Your task to perform on an android device: add a label to a message in the gmail app Image 0: 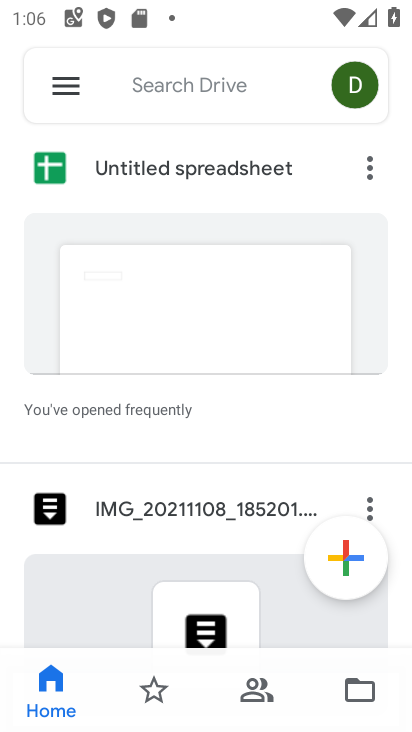
Step 0: press home button
Your task to perform on an android device: add a label to a message in the gmail app Image 1: 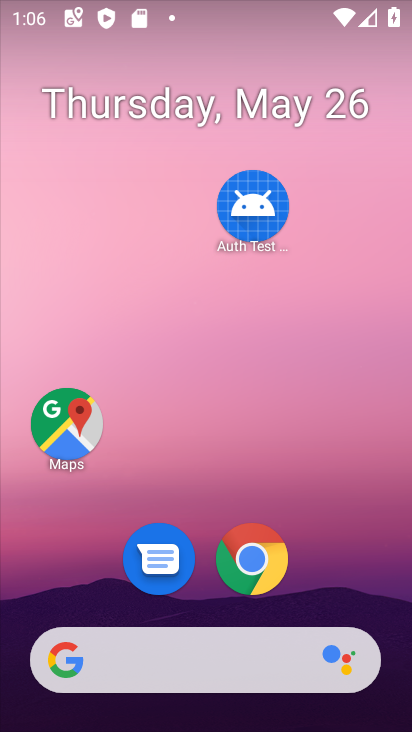
Step 1: drag from (358, 617) to (411, 192)
Your task to perform on an android device: add a label to a message in the gmail app Image 2: 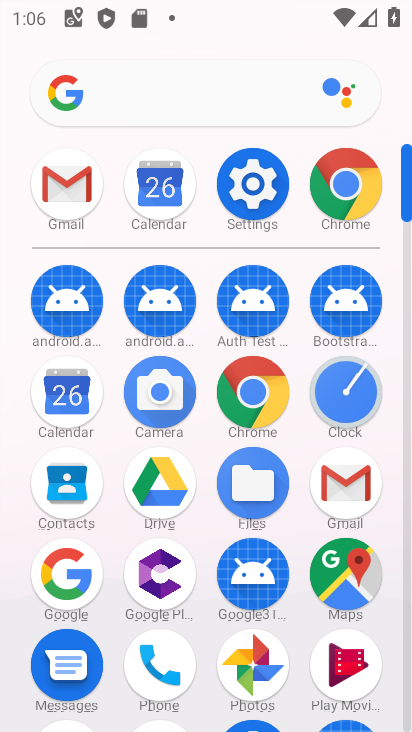
Step 2: click (62, 183)
Your task to perform on an android device: add a label to a message in the gmail app Image 3: 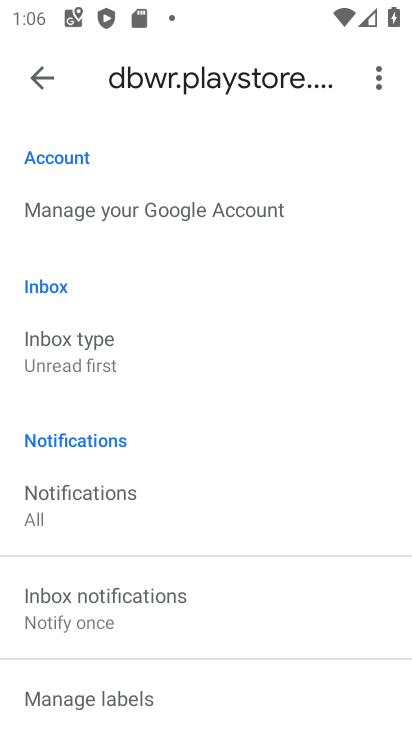
Step 3: click (60, 76)
Your task to perform on an android device: add a label to a message in the gmail app Image 4: 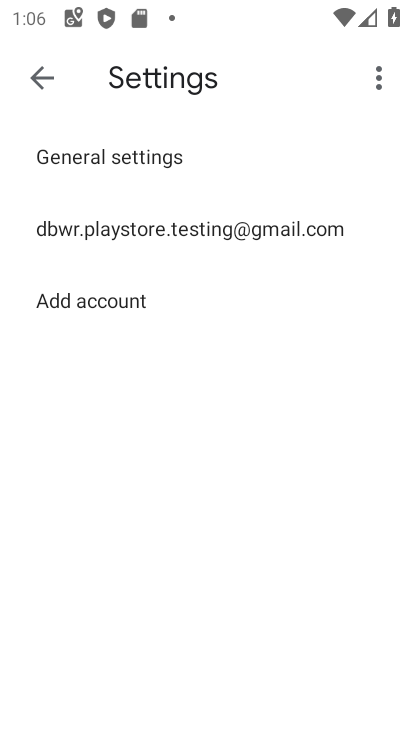
Step 4: click (60, 76)
Your task to perform on an android device: add a label to a message in the gmail app Image 5: 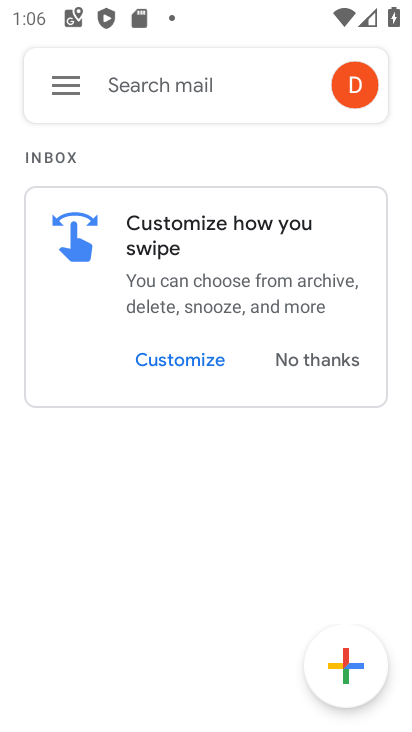
Step 5: click (64, 98)
Your task to perform on an android device: add a label to a message in the gmail app Image 6: 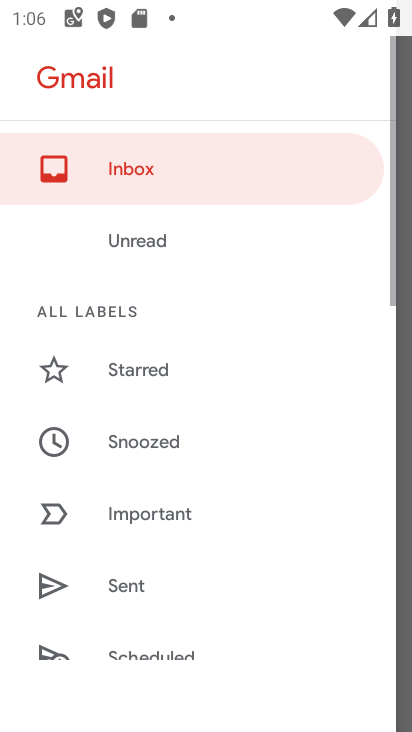
Step 6: drag from (342, 602) to (282, 84)
Your task to perform on an android device: add a label to a message in the gmail app Image 7: 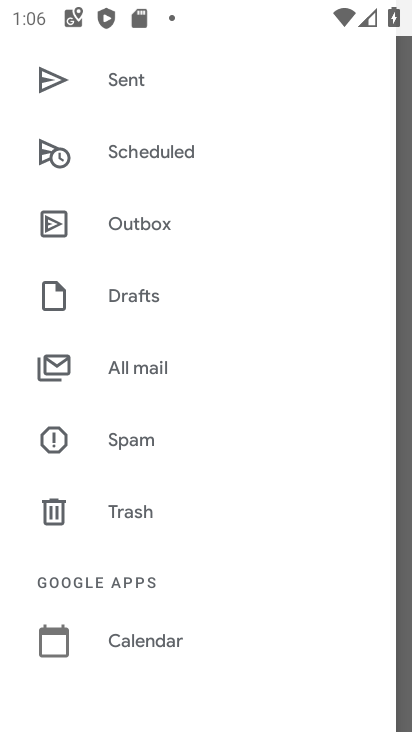
Step 7: click (216, 361)
Your task to perform on an android device: add a label to a message in the gmail app Image 8: 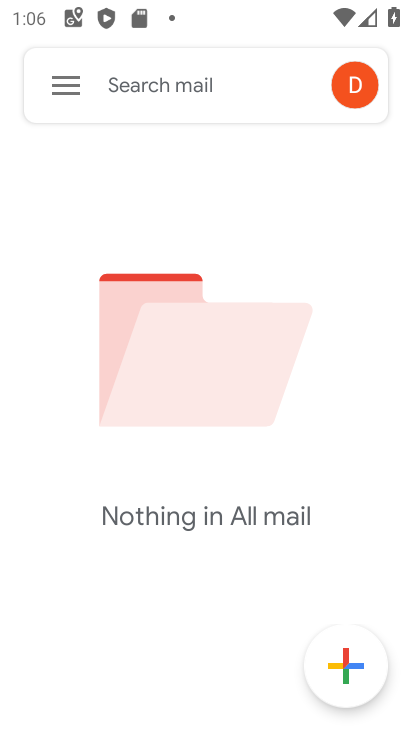
Step 8: task complete